Your task to perform on an android device: set an alarm Image 0: 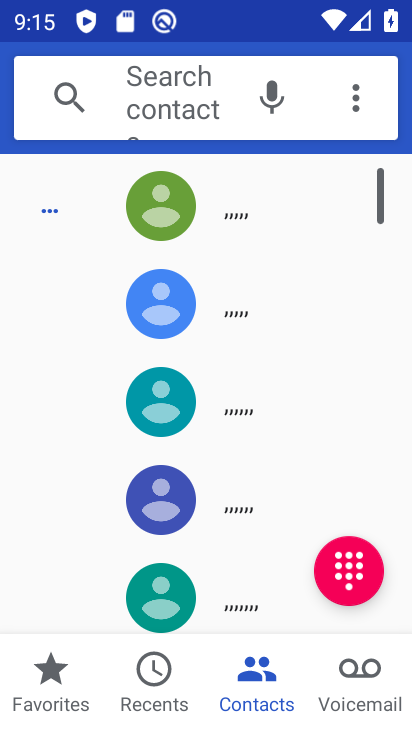
Step 0: press back button
Your task to perform on an android device: set an alarm Image 1: 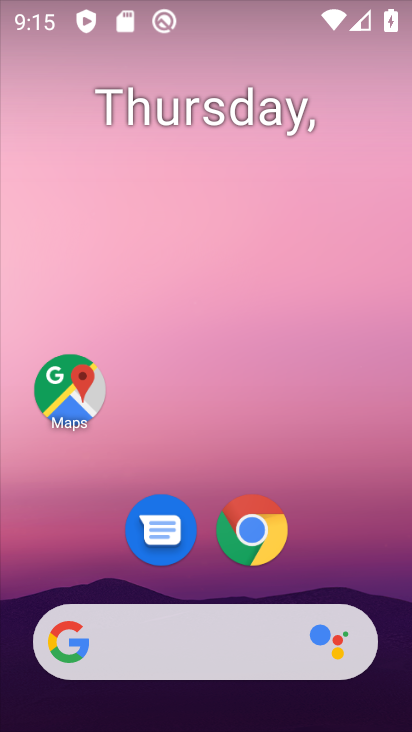
Step 1: drag from (353, 556) to (279, 37)
Your task to perform on an android device: set an alarm Image 2: 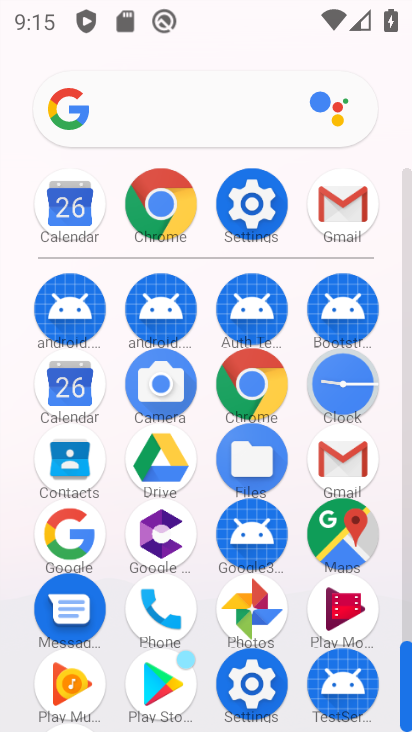
Step 2: drag from (10, 554) to (0, 248)
Your task to perform on an android device: set an alarm Image 3: 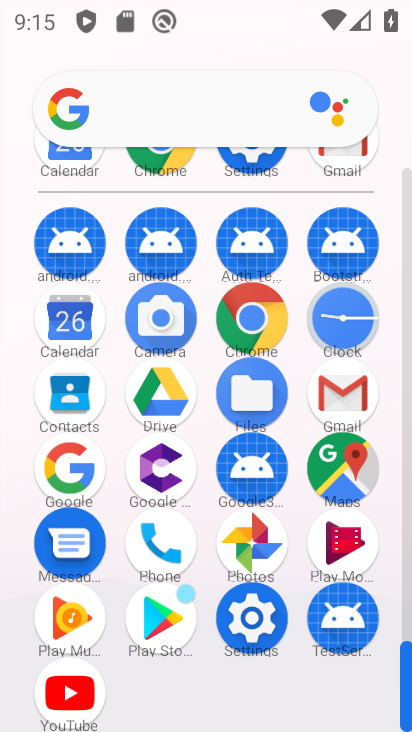
Step 3: click (342, 308)
Your task to perform on an android device: set an alarm Image 4: 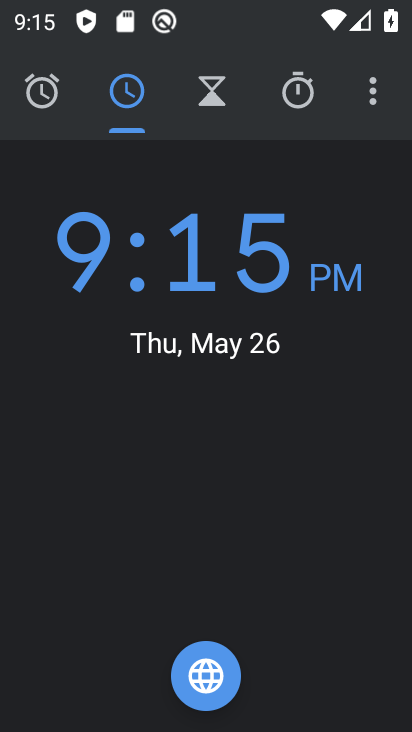
Step 4: click (49, 88)
Your task to perform on an android device: set an alarm Image 5: 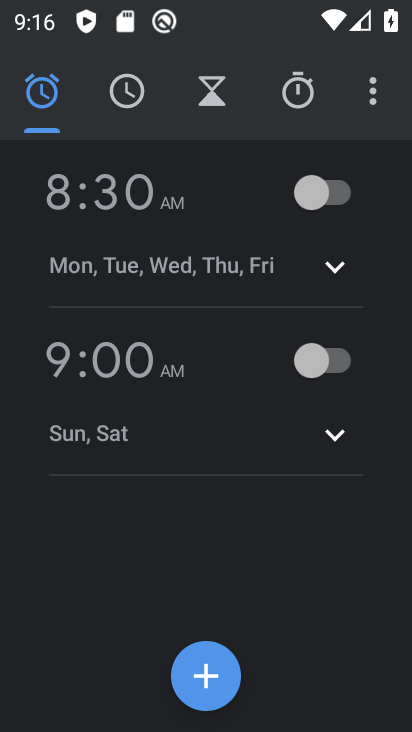
Step 5: click (221, 672)
Your task to perform on an android device: set an alarm Image 6: 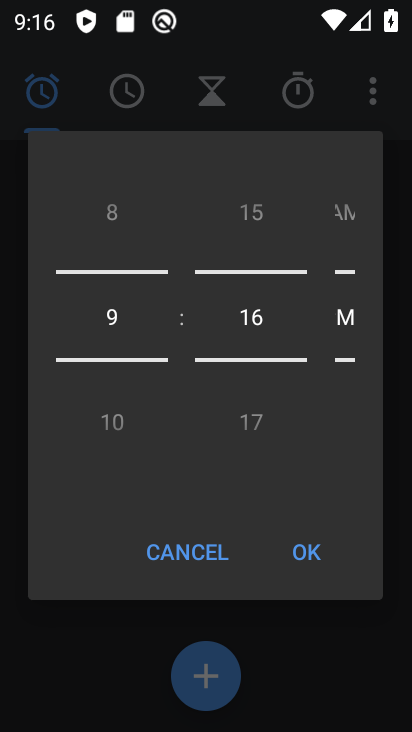
Step 6: drag from (147, 392) to (135, 183)
Your task to perform on an android device: set an alarm Image 7: 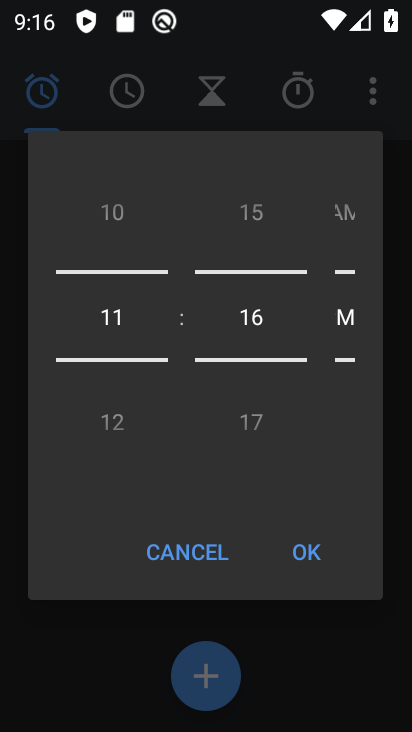
Step 7: drag from (295, 396) to (287, 215)
Your task to perform on an android device: set an alarm Image 8: 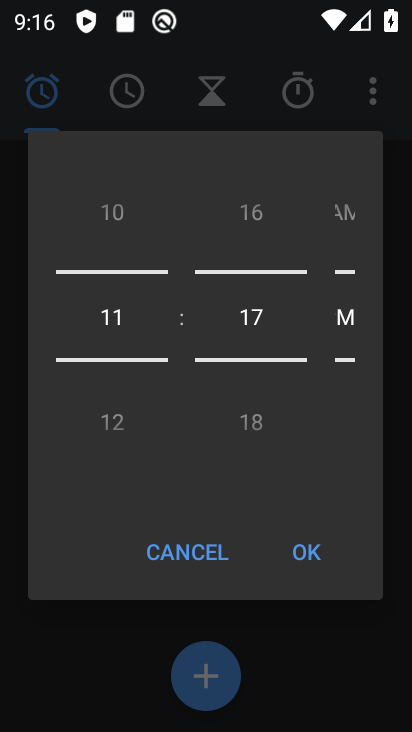
Step 8: click (313, 557)
Your task to perform on an android device: set an alarm Image 9: 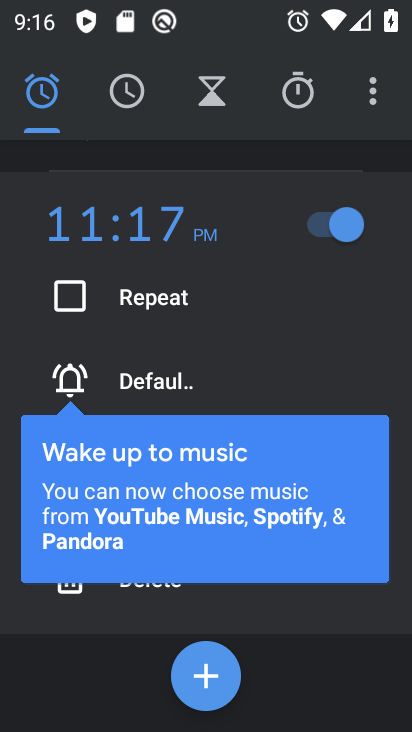
Step 9: task complete